Your task to perform on an android device: Open the web browser Image 0: 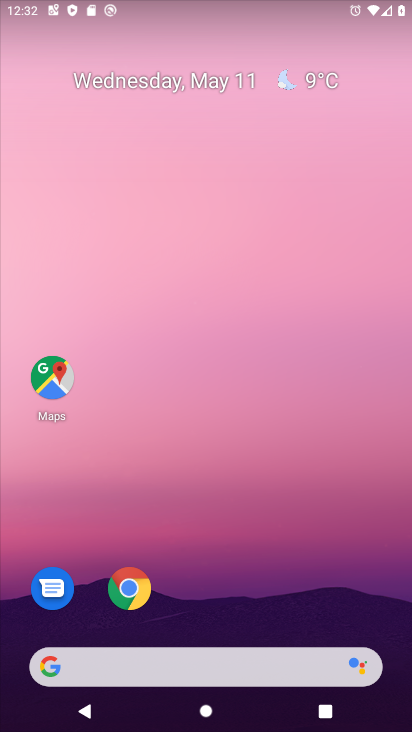
Step 0: click (134, 594)
Your task to perform on an android device: Open the web browser Image 1: 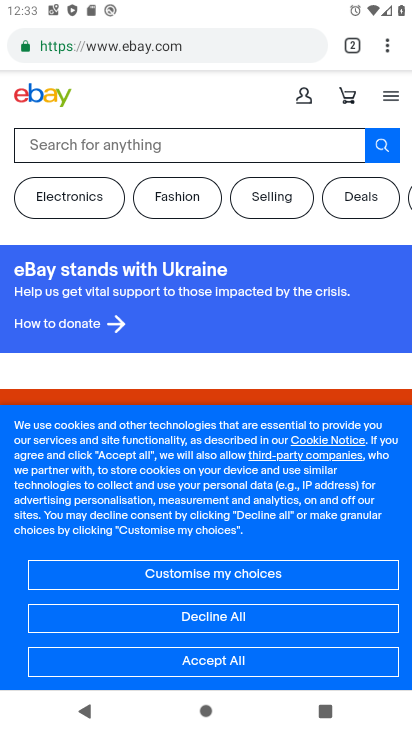
Step 1: task complete